Your task to perform on an android device: Search for seafood restaurants on Google Maps Image 0: 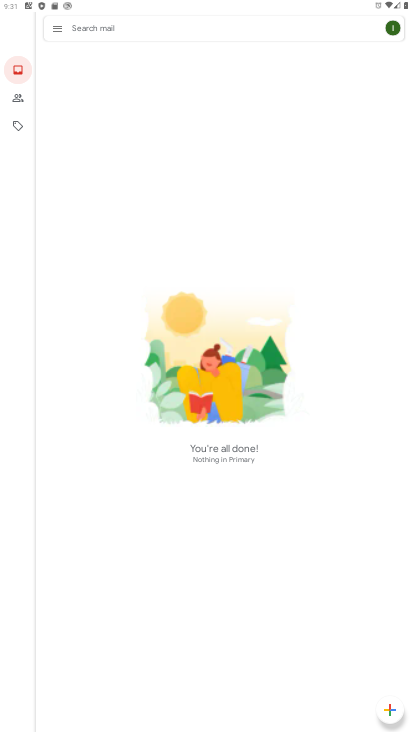
Step 0: press home button
Your task to perform on an android device: Search for seafood restaurants on Google Maps Image 1: 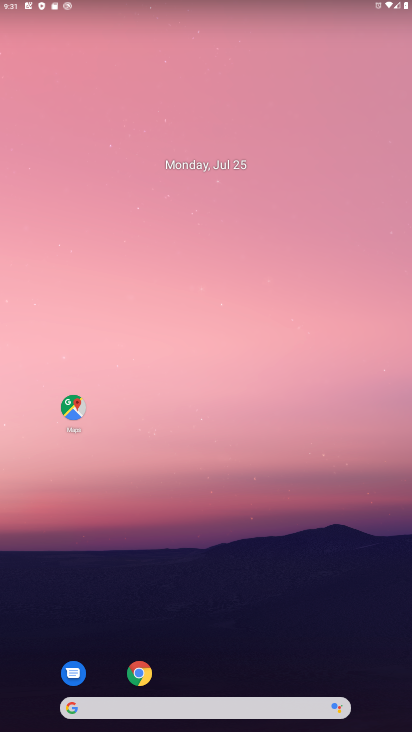
Step 1: drag from (192, 680) to (398, 117)
Your task to perform on an android device: Search for seafood restaurants on Google Maps Image 2: 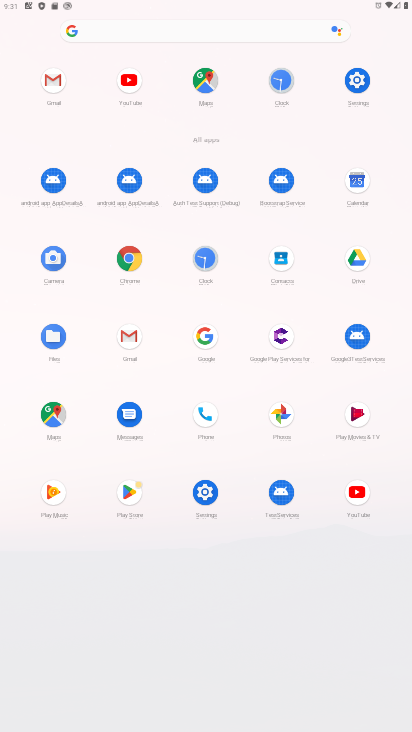
Step 2: click (52, 415)
Your task to perform on an android device: Search for seafood restaurants on Google Maps Image 3: 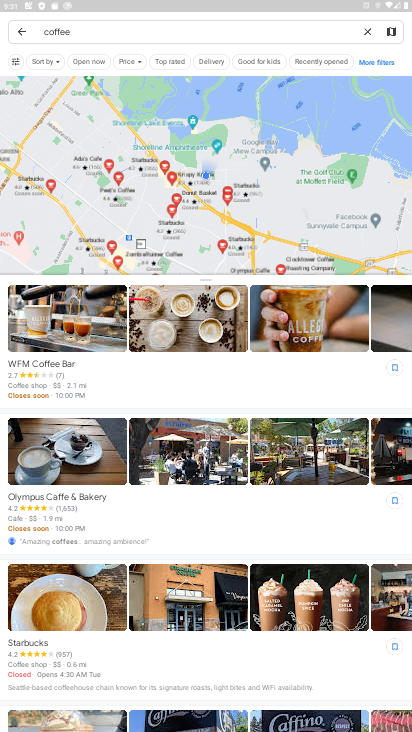
Step 3: click (368, 32)
Your task to perform on an android device: Search for seafood restaurants on Google Maps Image 4: 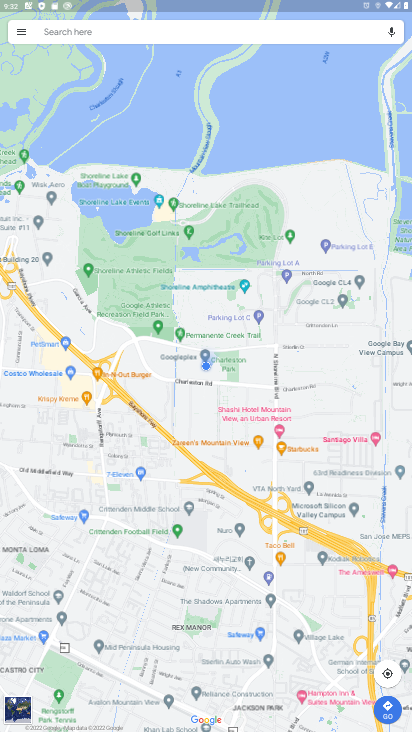
Step 4: click (144, 30)
Your task to perform on an android device: Search for seafood restaurants on Google Maps Image 5: 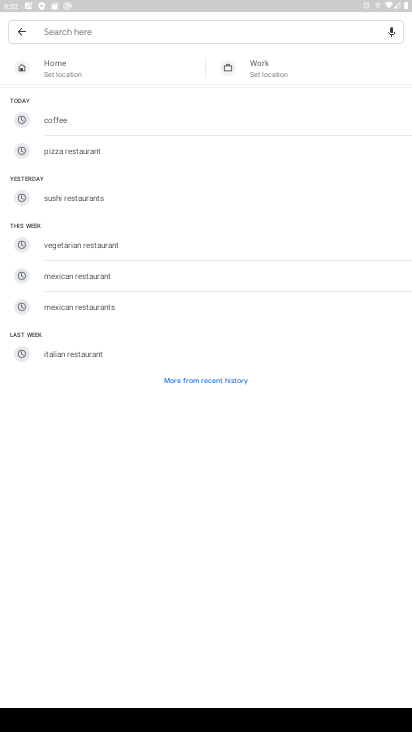
Step 5: type "seafood restaurants"
Your task to perform on an android device: Search for seafood restaurants on Google Maps Image 6: 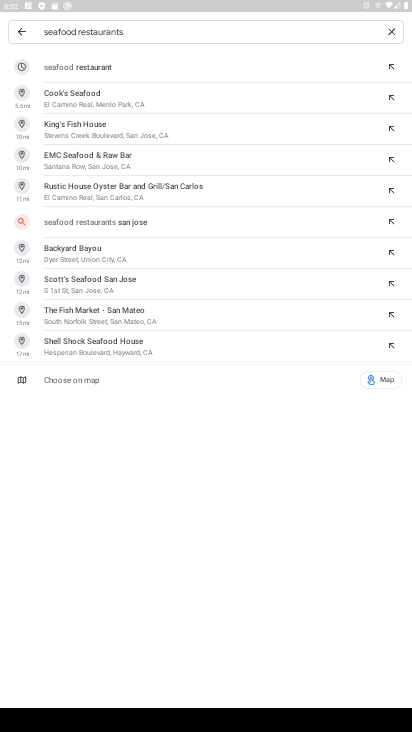
Step 6: click (119, 65)
Your task to perform on an android device: Search for seafood restaurants on Google Maps Image 7: 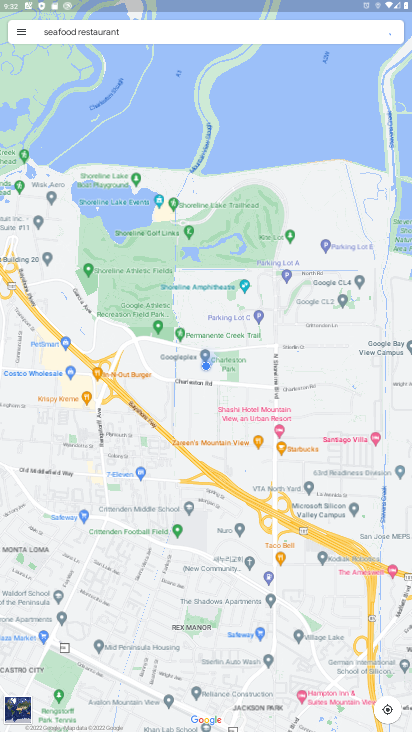
Step 7: task complete